Your task to perform on an android device: Show me the alarms in the clock app Image 0: 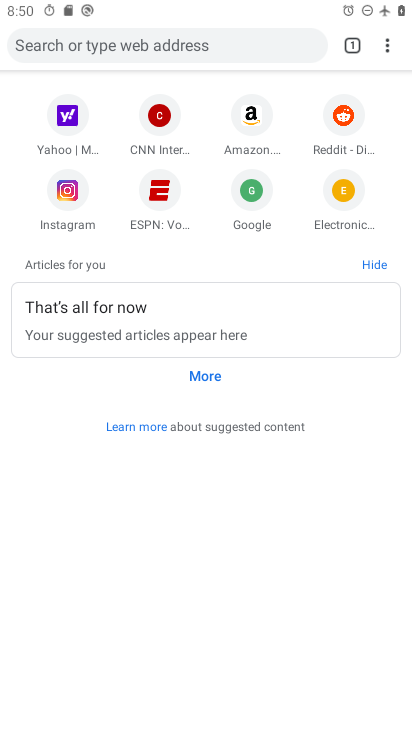
Step 0: press home button
Your task to perform on an android device: Show me the alarms in the clock app Image 1: 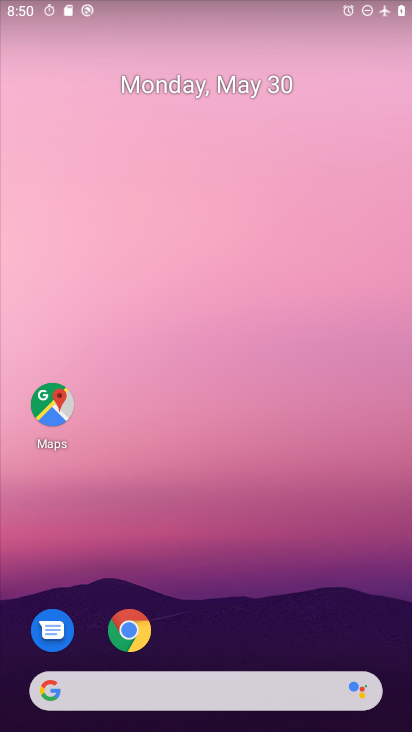
Step 1: drag from (332, 610) to (275, 48)
Your task to perform on an android device: Show me the alarms in the clock app Image 2: 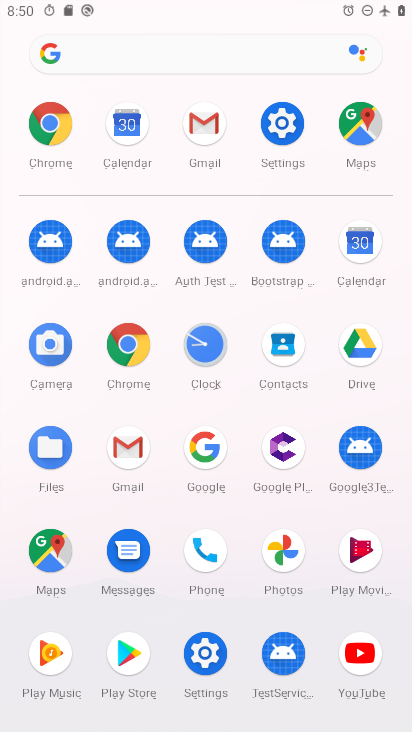
Step 2: click (207, 361)
Your task to perform on an android device: Show me the alarms in the clock app Image 3: 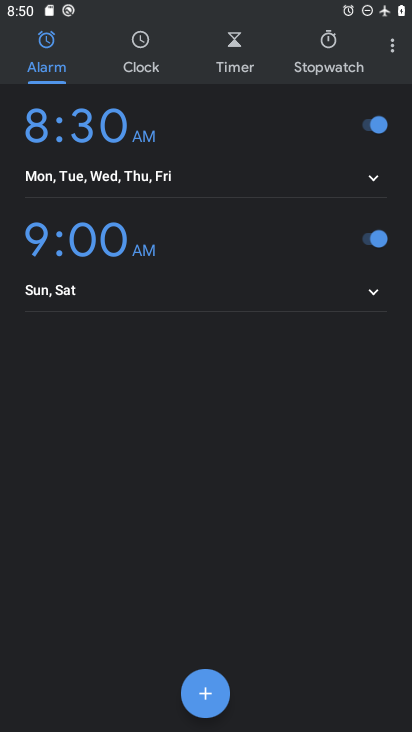
Step 3: task complete